Your task to perform on an android device: delete a single message in the gmail app Image 0: 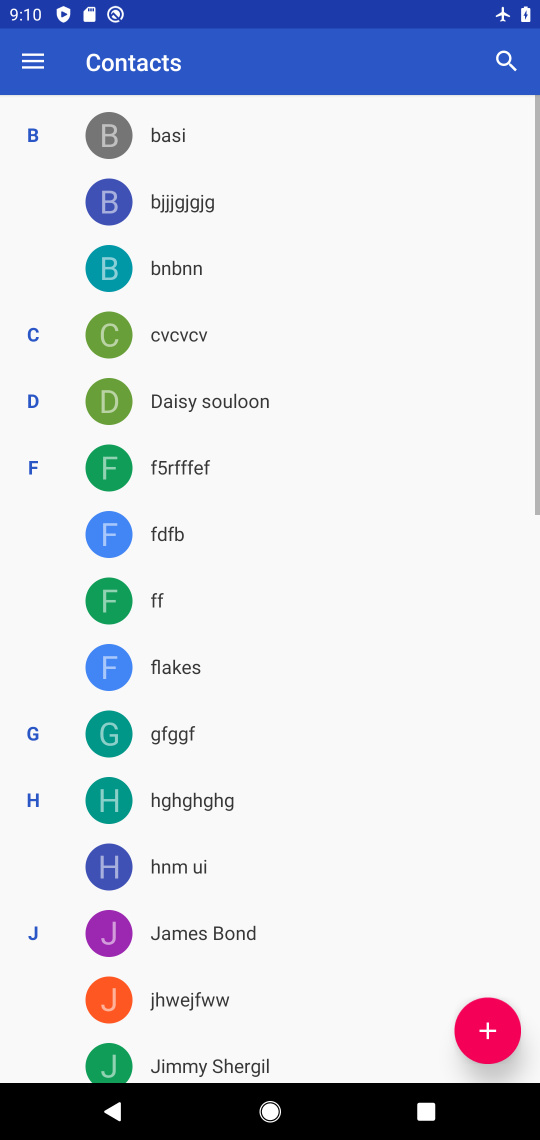
Step 0: click (333, 1103)
Your task to perform on an android device: delete a single message in the gmail app Image 1: 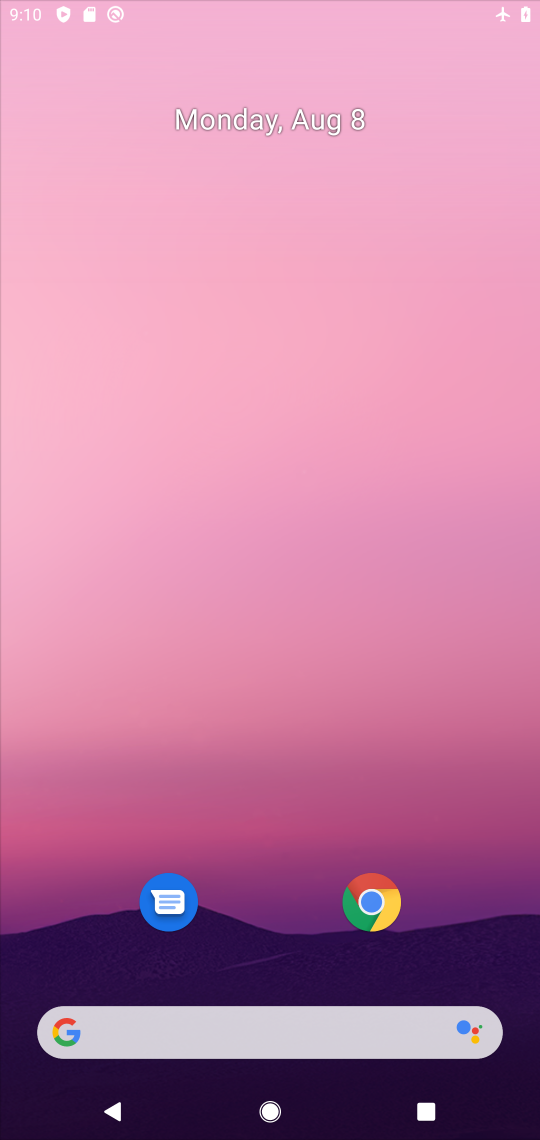
Step 1: press back button
Your task to perform on an android device: delete a single message in the gmail app Image 2: 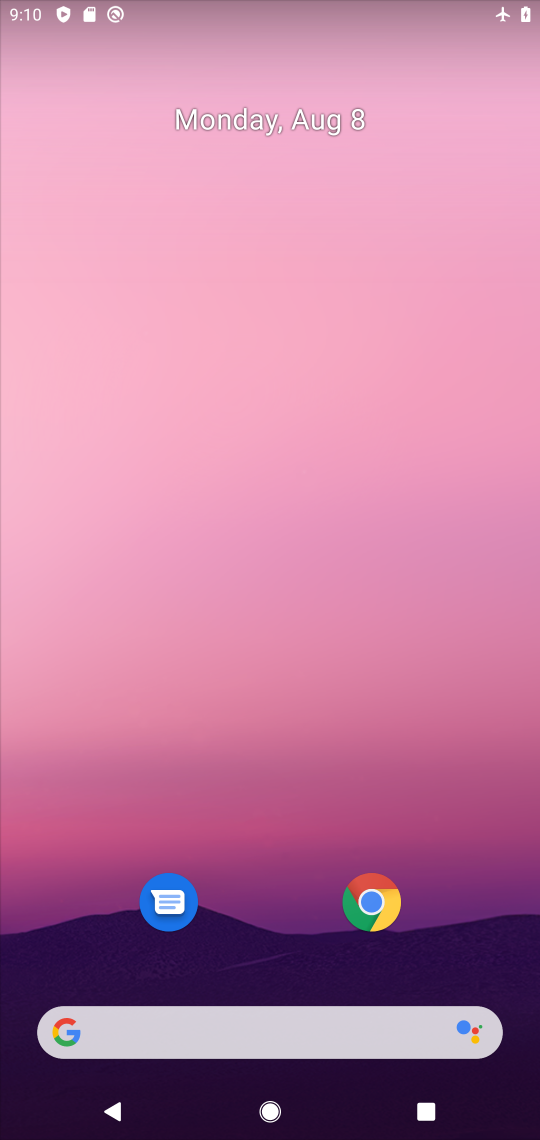
Step 2: drag from (257, 946) to (274, 249)
Your task to perform on an android device: delete a single message in the gmail app Image 3: 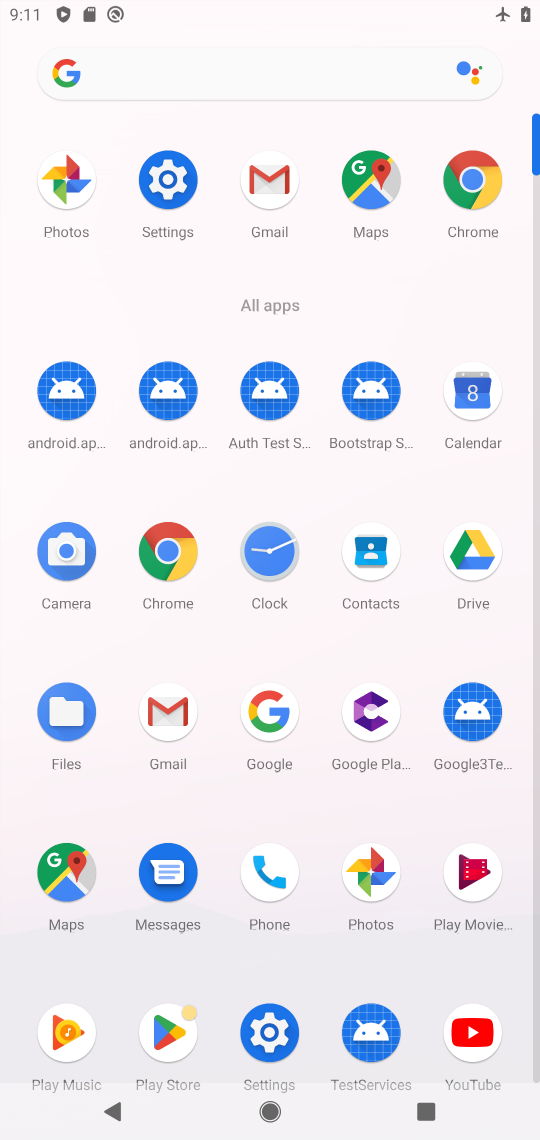
Step 3: click (149, 716)
Your task to perform on an android device: delete a single message in the gmail app Image 4: 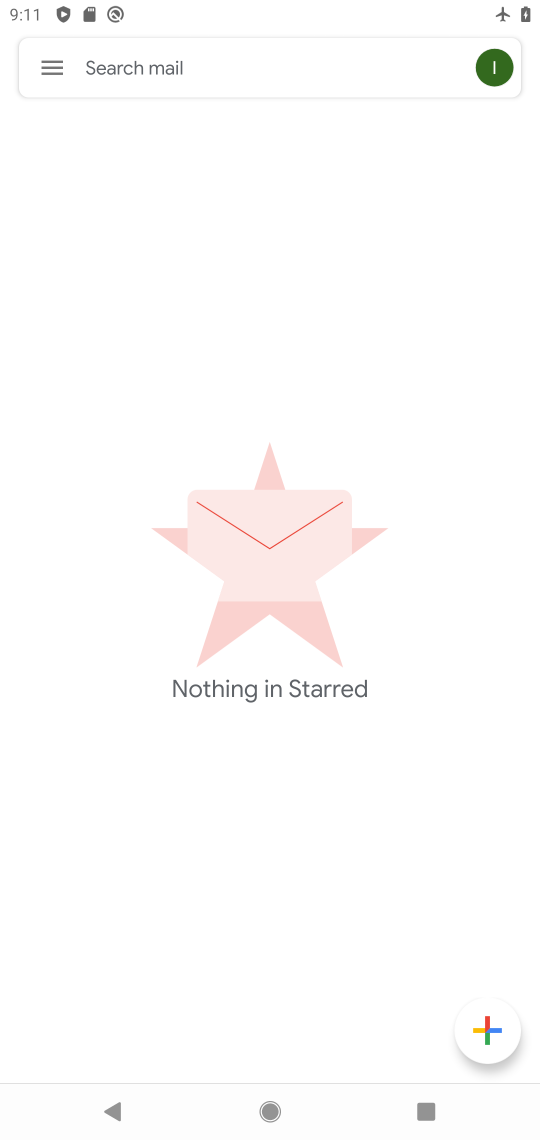
Step 4: click (51, 75)
Your task to perform on an android device: delete a single message in the gmail app Image 5: 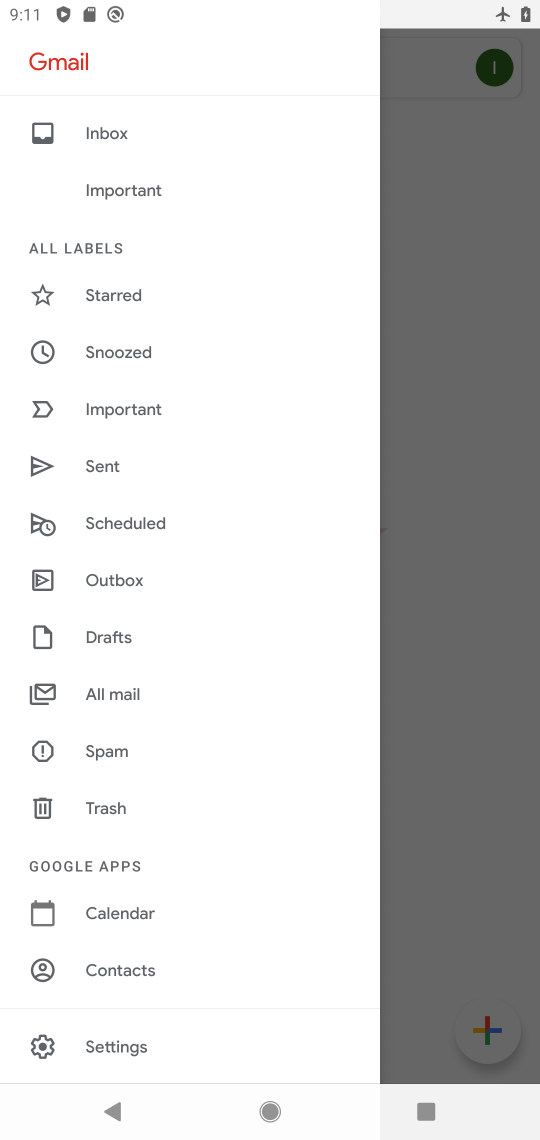
Step 5: click (122, 131)
Your task to perform on an android device: delete a single message in the gmail app Image 6: 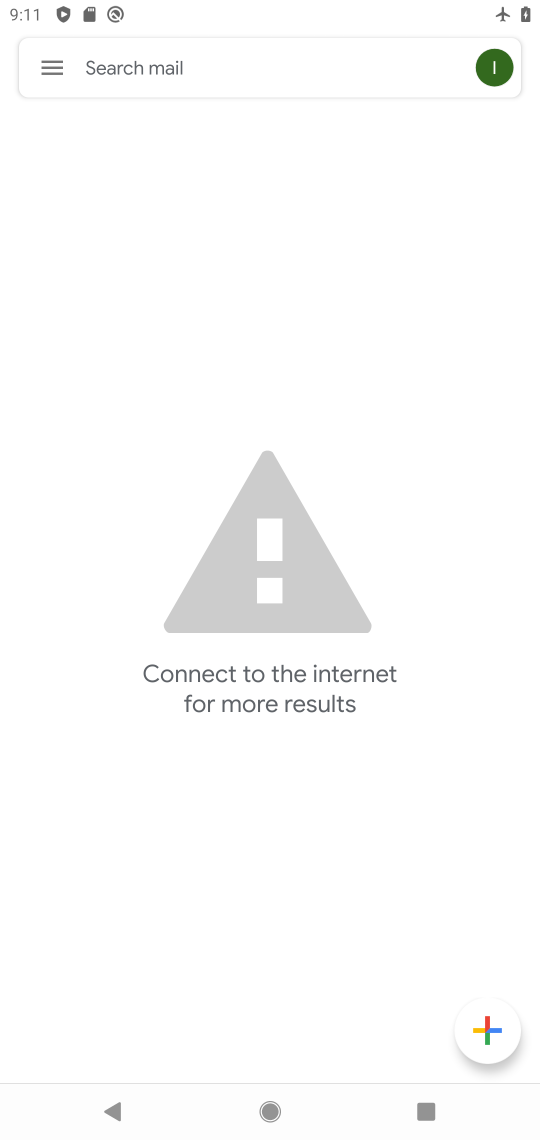
Step 6: task complete